Your task to perform on an android device: snooze an email in the gmail app Image 0: 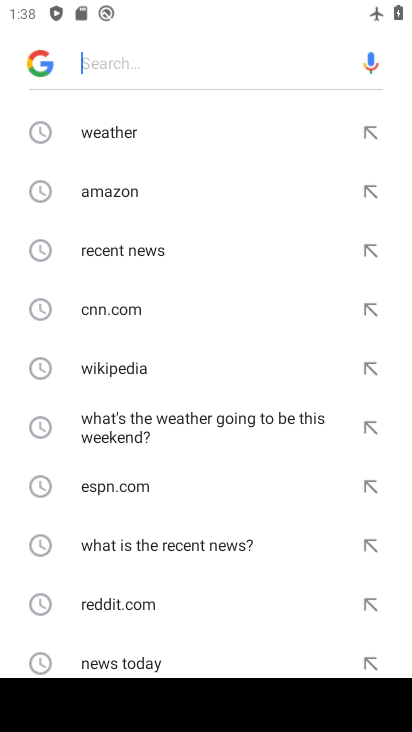
Step 0: press home button
Your task to perform on an android device: snooze an email in the gmail app Image 1: 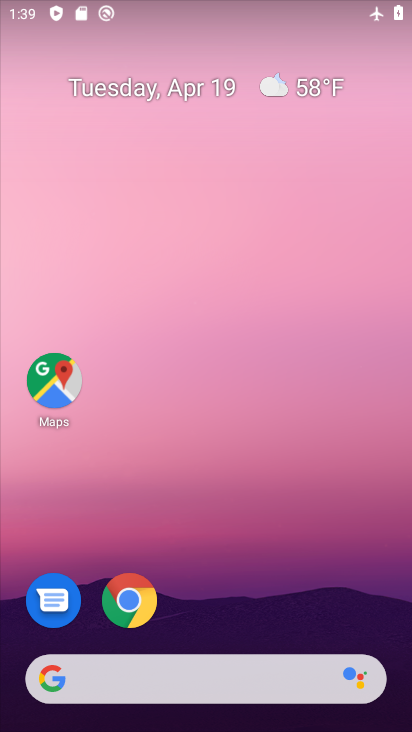
Step 1: drag from (233, 669) to (222, 204)
Your task to perform on an android device: snooze an email in the gmail app Image 2: 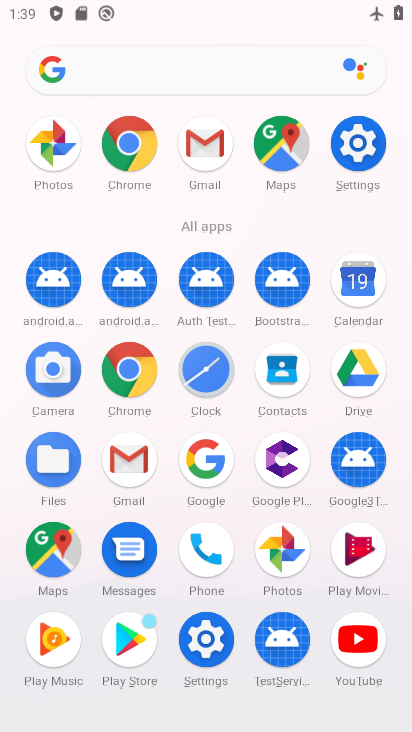
Step 2: click (130, 456)
Your task to perform on an android device: snooze an email in the gmail app Image 3: 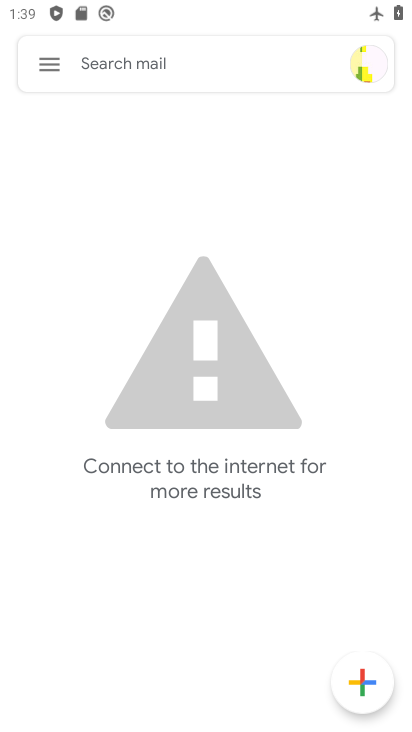
Step 3: click (51, 76)
Your task to perform on an android device: snooze an email in the gmail app Image 4: 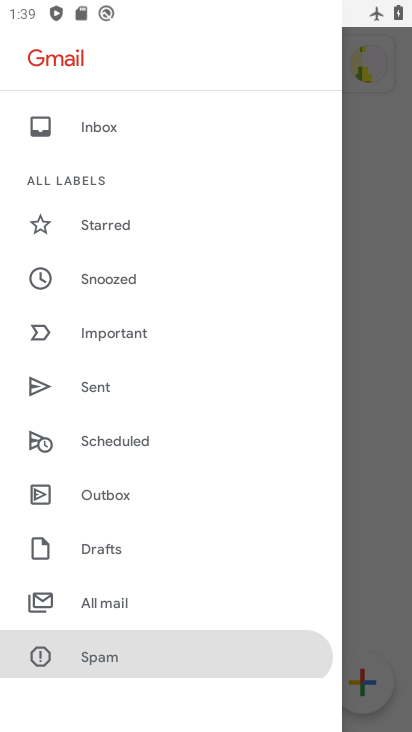
Step 4: click (129, 607)
Your task to perform on an android device: snooze an email in the gmail app Image 5: 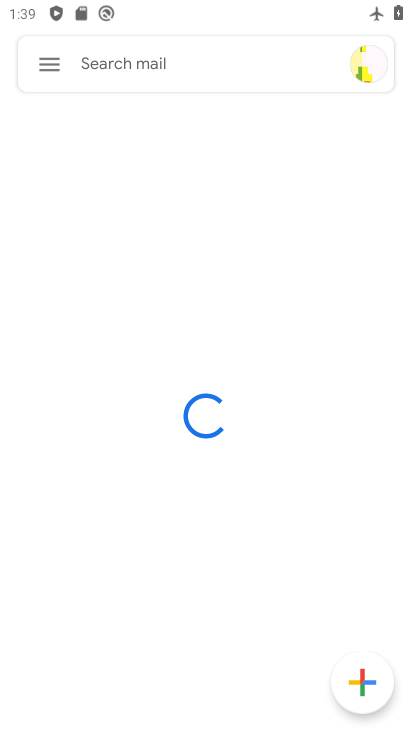
Step 5: task complete